Your task to perform on an android device: clear history in the chrome app Image 0: 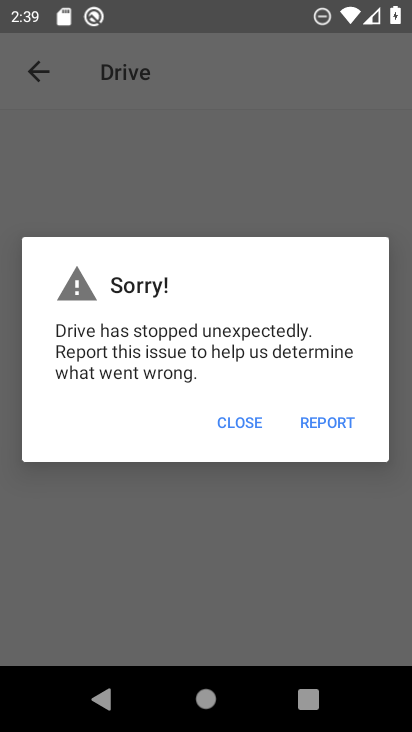
Step 0: press home button
Your task to perform on an android device: clear history in the chrome app Image 1: 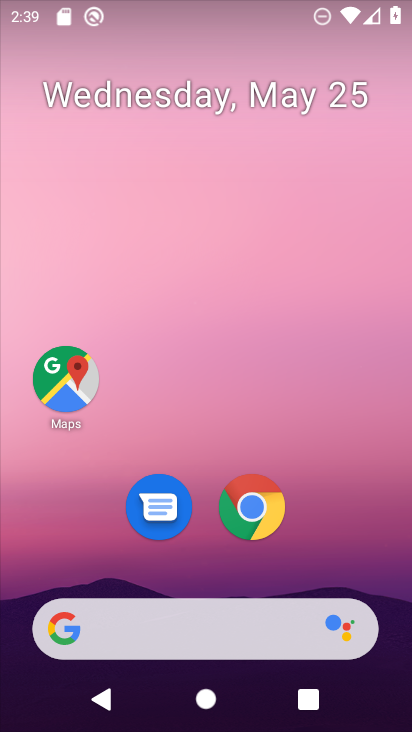
Step 1: click (266, 526)
Your task to perform on an android device: clear history in the chrome app Image 2: 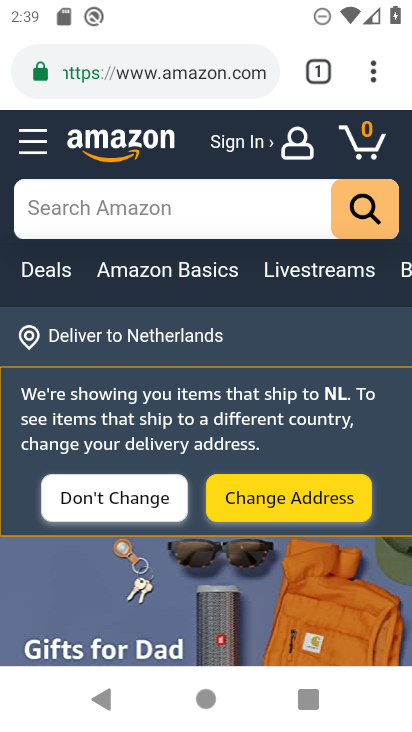
Step 2: click (380, 63)
Your task to perform on an android device: clear history in the chrome app Image 3: 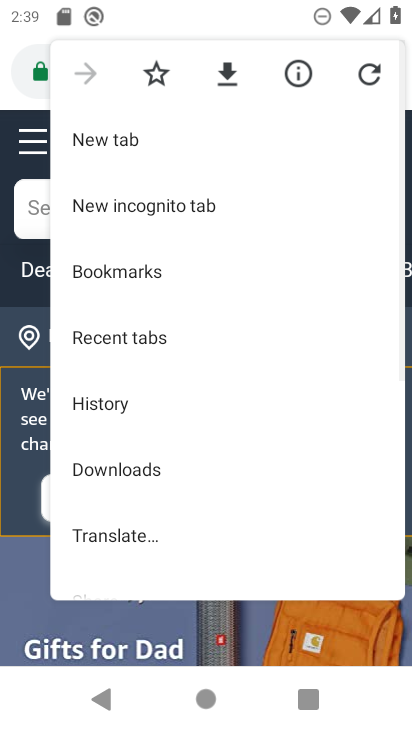
Step 3: drag from (242, 524) to (271, 268)
Your task to perform on an android device: clear history in the chrome app Image 4: 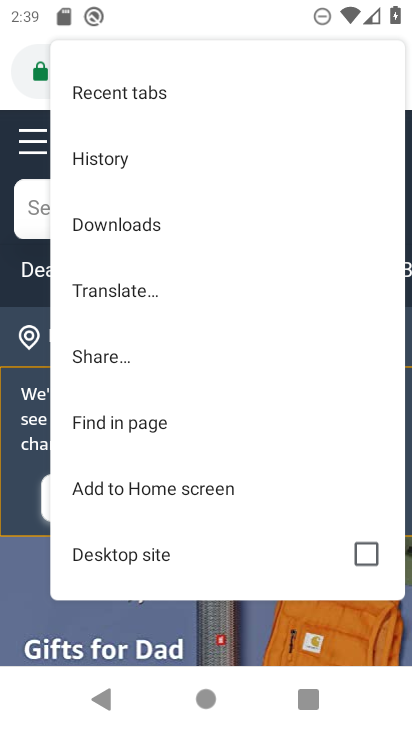
Step 4: click (193, 236)
Your task to perform on an android device: clear history in the chrome app Image 5: 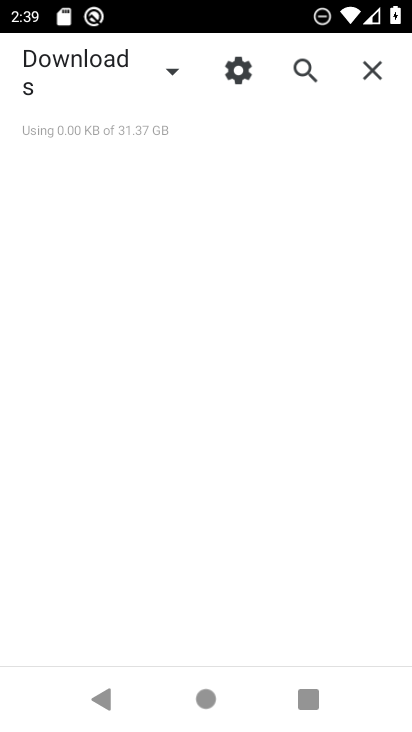
Step 5: click (367, 68)
Your task to perform on an android device: clear history in the chrome app Image 6: 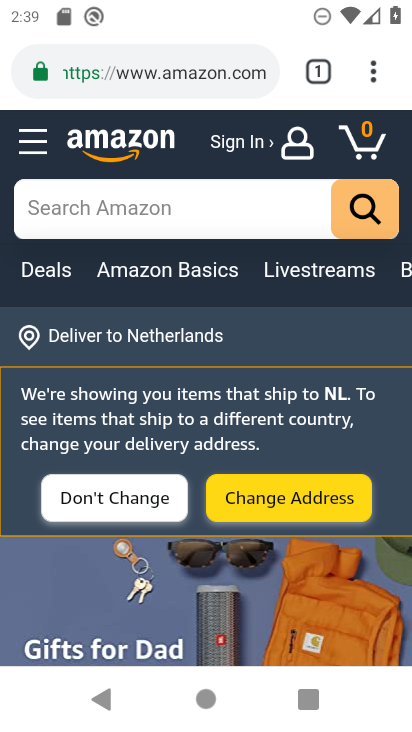
Step 6: click (367, 68)
Your task to perform on an android device: clear history in the chrome app Image 7: 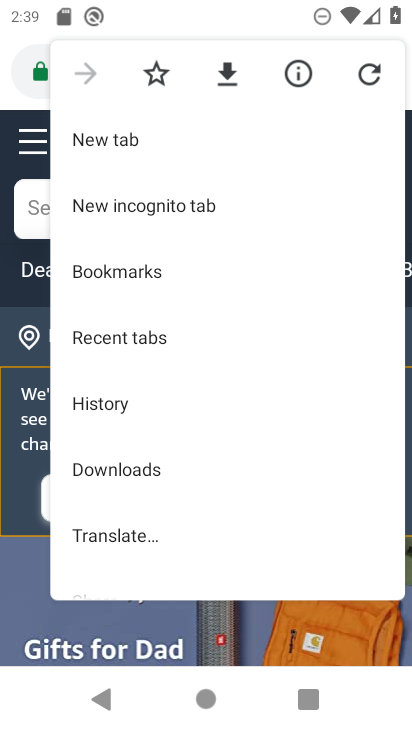
Step 7: click (130, 408)
Your task to perform on an android device: clear history in the chrome app Image 8: 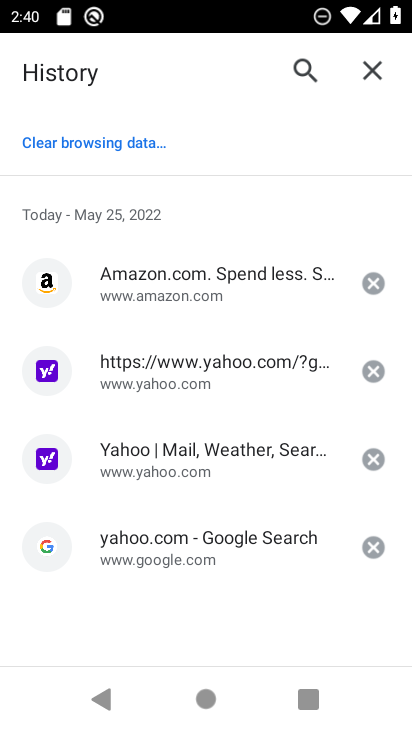
Step 8: click (87, 145)
Your task to perform on an android device: clear history in the chrome app Image 9: 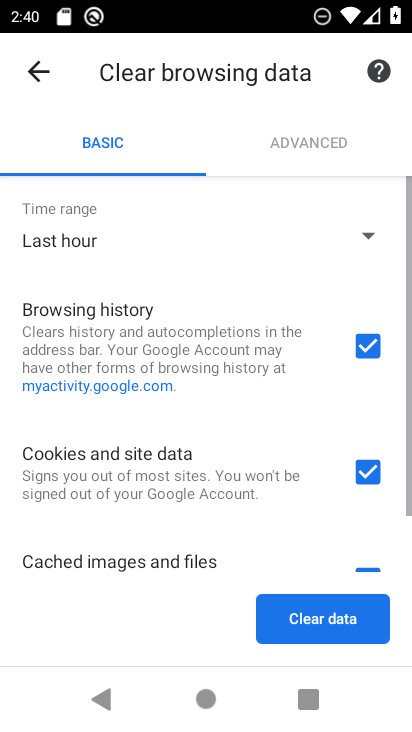
Step 9: click (374, 474)
Your task to perform on an android device: clear history in the chrome app Image 10: 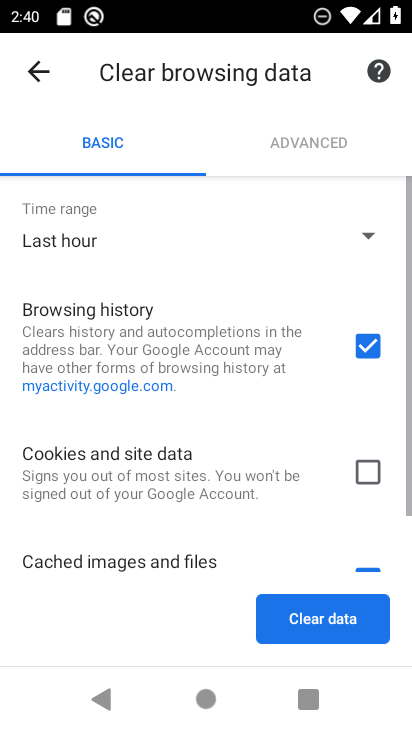
Step 10: click (373, 565)
Your task to perform on an android device: clear history in the chrome app Image 11: 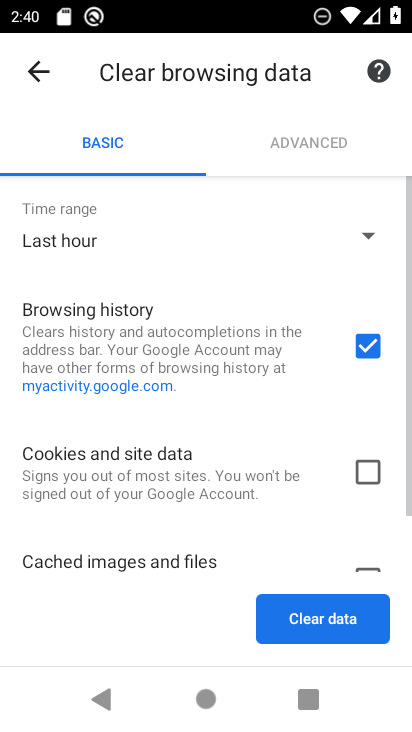
Step 11: drag from (272, 507) to (281, 338)
Your task to perform on an android device: clear history in the chrome app Image 12: 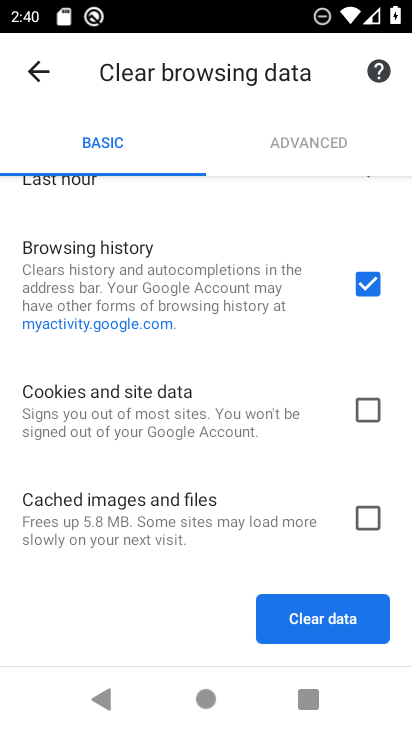
Step 12: click (351, 623)
Your task to perform on an android device: clear history in the chrome app Image 13: 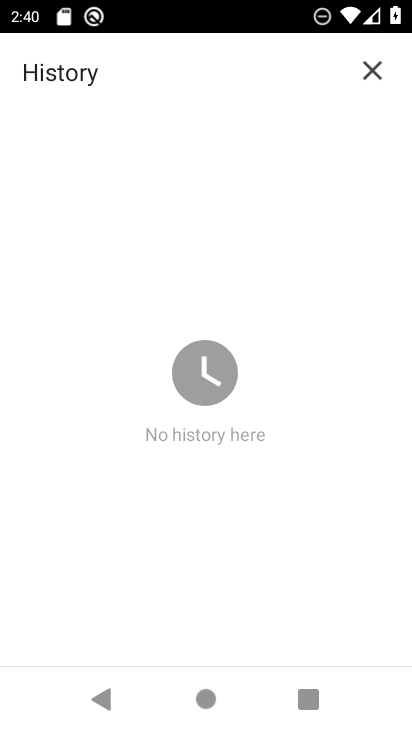
Step 13: task complete